Your task to perform on an android device: change your default location settings in chrome Image 0: 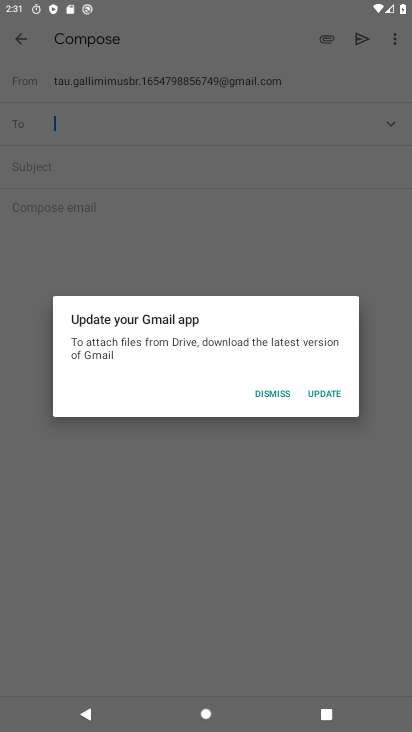
Step 0: press home button
Your task to perform on an android device: change your default location settings in chrome Image 1: 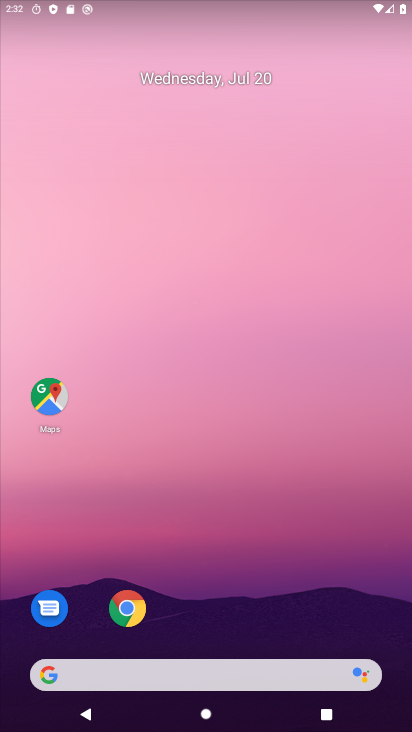
Step 1: click (126, 618)
Your task to perform on an android device: change your default location settings in chrome Image 2: 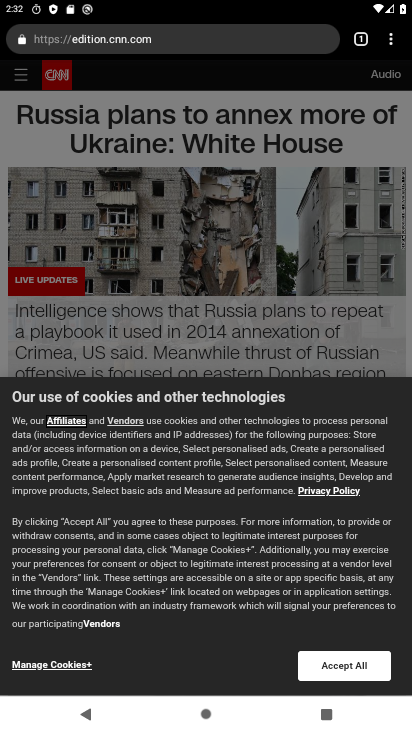
Step 2: click (395, 40)
Your task to perform on an android device: change your default location settings in chrome Image 3: 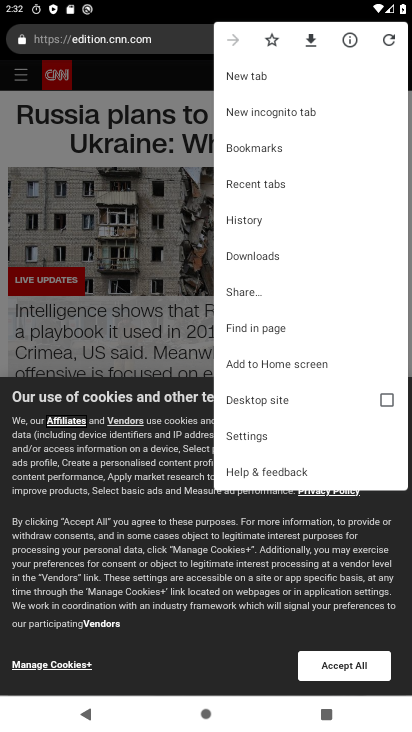
Step 3: click (265, 442)
Your task to perform on an android device: change your default location settings in chrome Image 4: 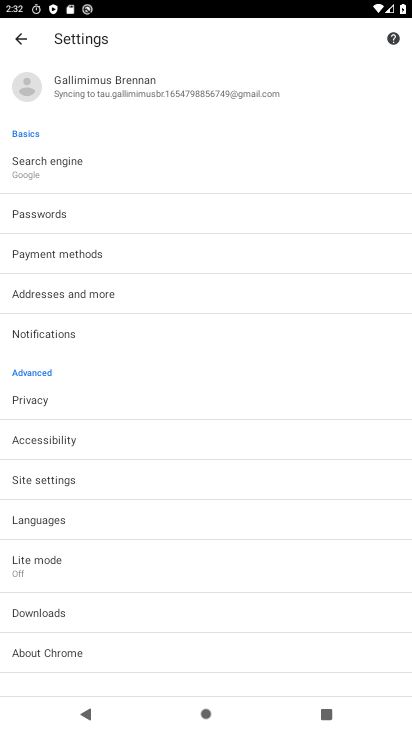
Step 4: click (54, 482)
Your task to perform on an android device: change your default location settings in chrome Image 5: 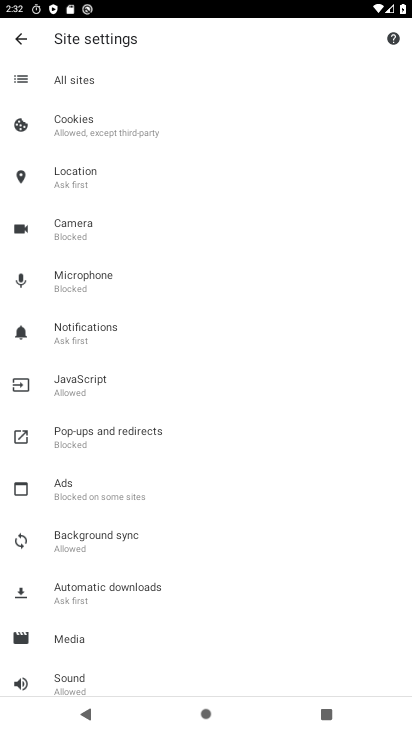
Step 5: click (121, 176)
Your task to perform on an android device: change your default location settings in chrome Image 6: 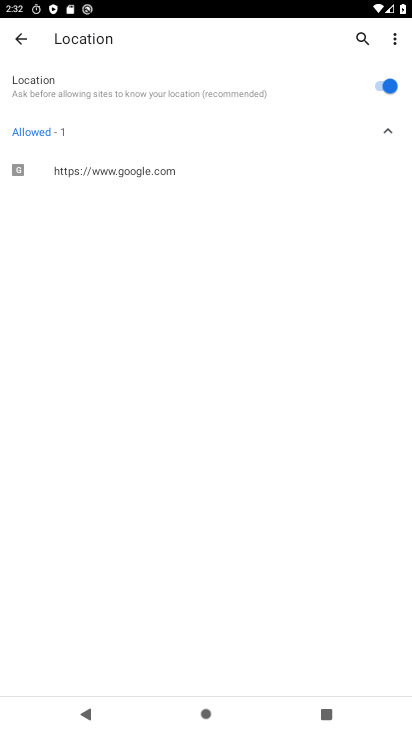
Step 6: click (390, 79)
Your task to perform on an android device: change your default location settings in chrome Image 7: 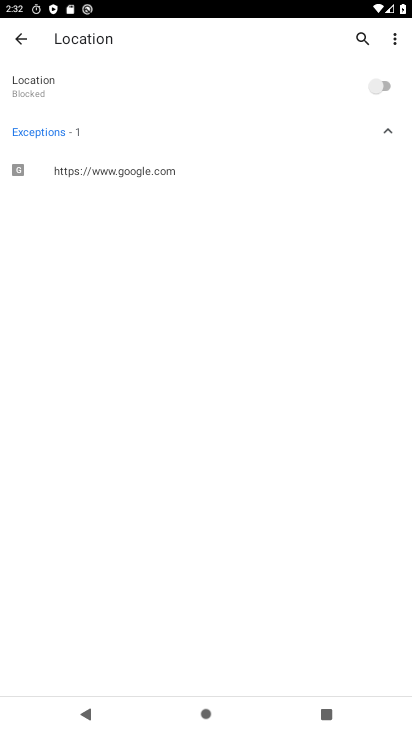
Step 7: task complete